Your task to perform on an android device: Is it going to rain today? Image 0: 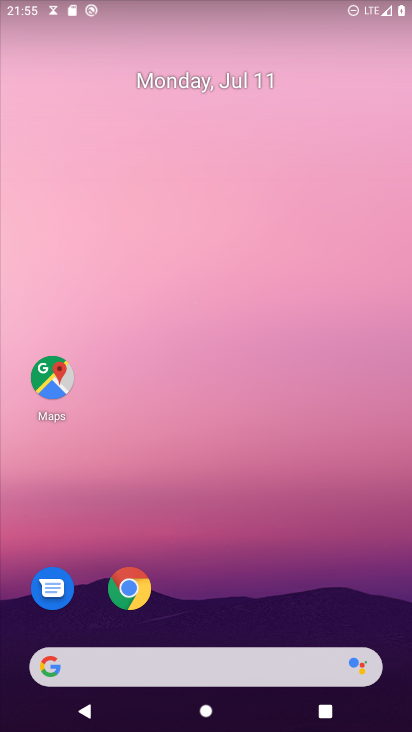
Step 0: press home button
Your task to perform on an android device: Is it going to rain today? Image 1: 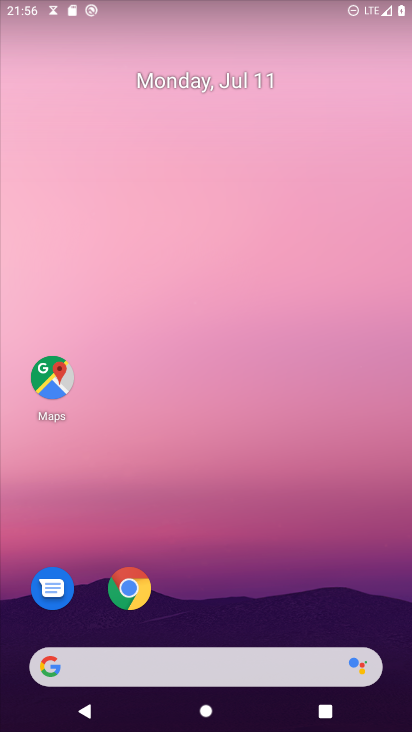
Step 1: click (58, 660)
Your task to perform on an android device: Is it going to rain today? Image 2: 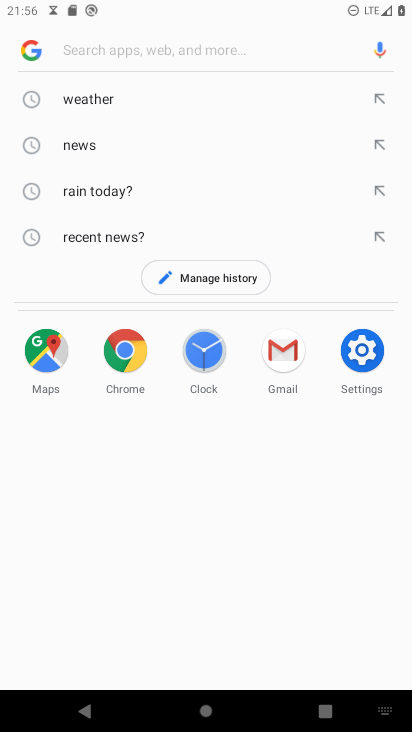
Step 2: click (103, 184)
Your task to perform on an android device: Is it going to rain today? Image 3: 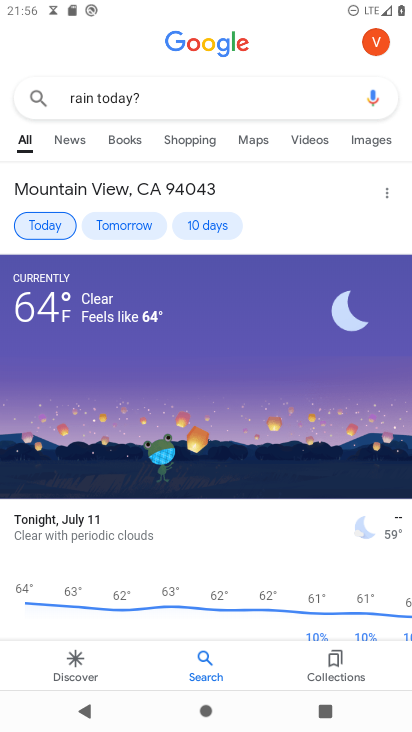
Step 3: task complete